Your task to perform on an android device: open app "Grab" Image 0: 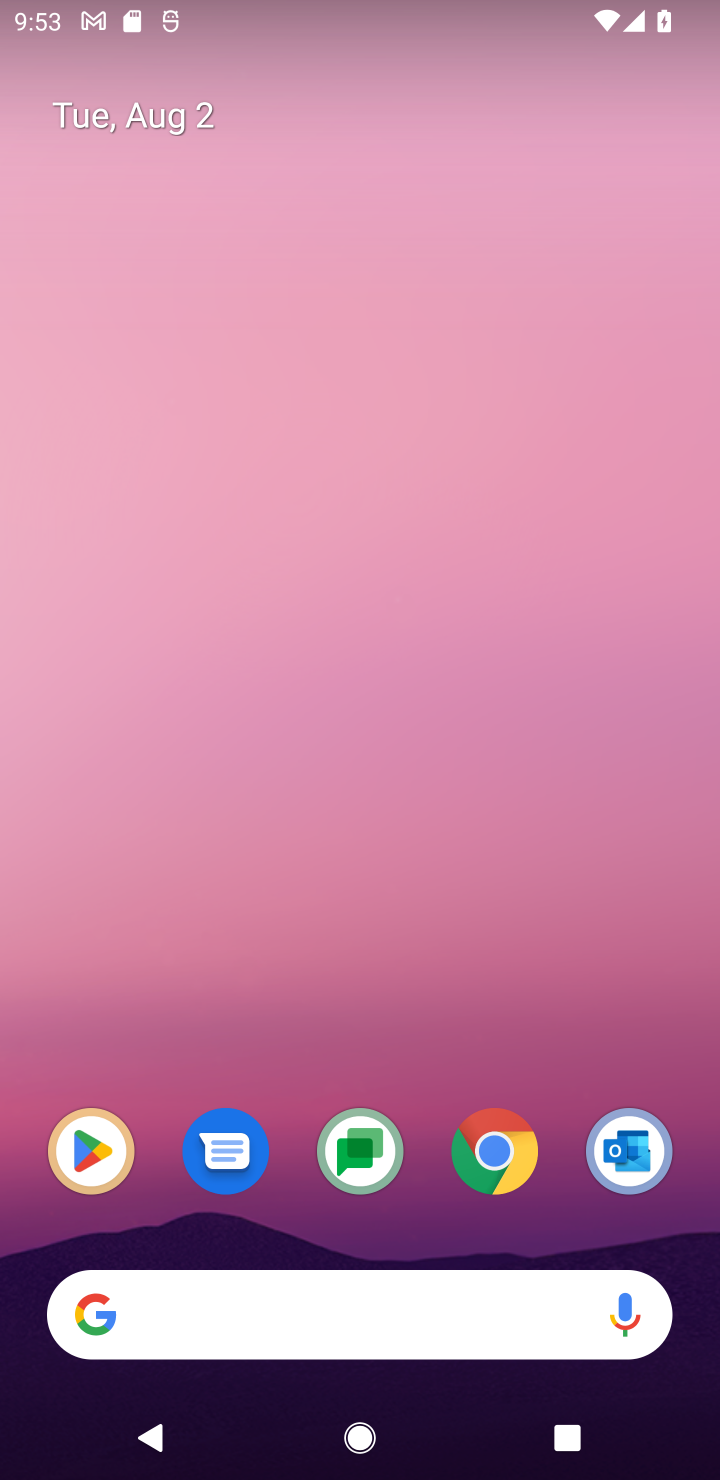
Step 0: drag from (405, 1230) to (426, 42)
Your task to perform on an android device: open app "Grab" Image 1: 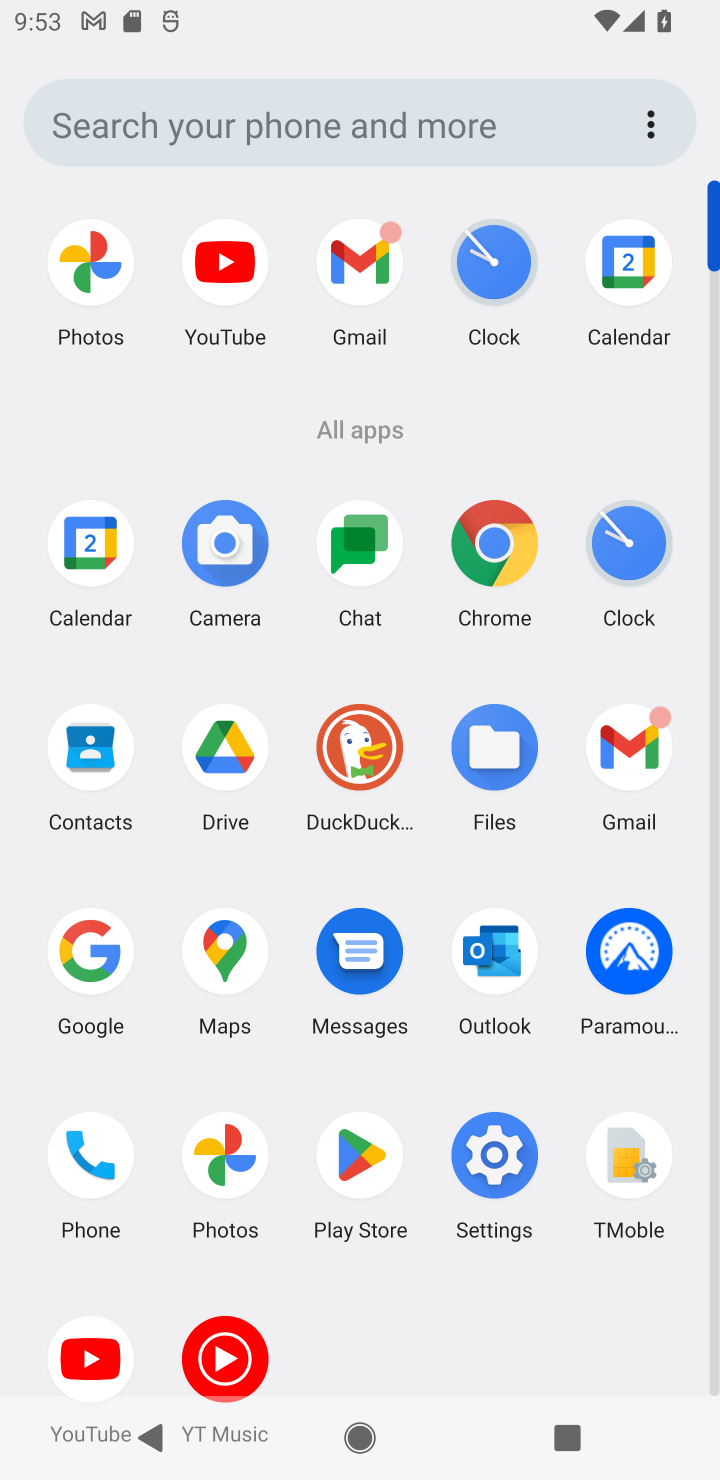
Step 1: click (355, 1179)
Your task to perform on an android device: open app "Grab" Image 2: 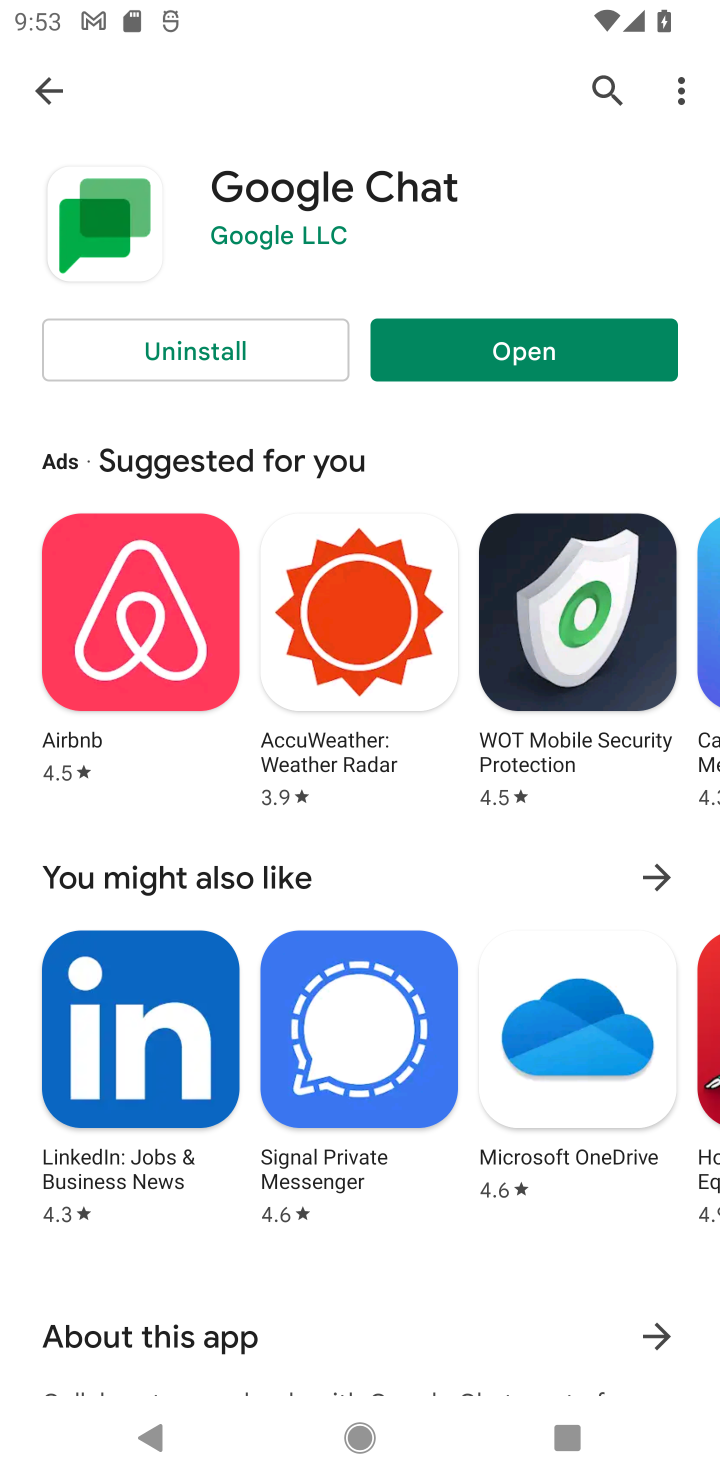
Step 2: click (26, 92)
Your task to perform on an android device: open app "Grab" Image 3: 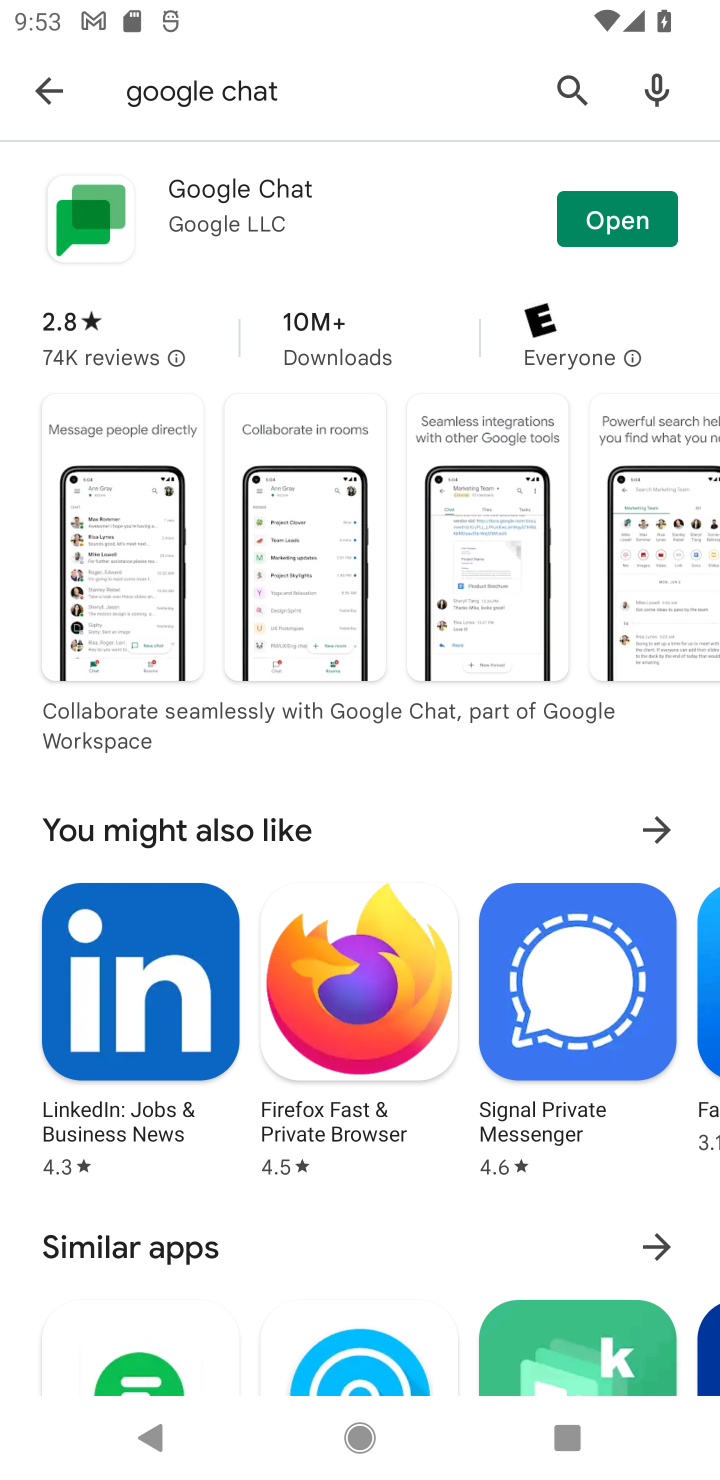
Step 3: click (41, 99)
Your task to perform on an android device: open app "Grab" Image 4: 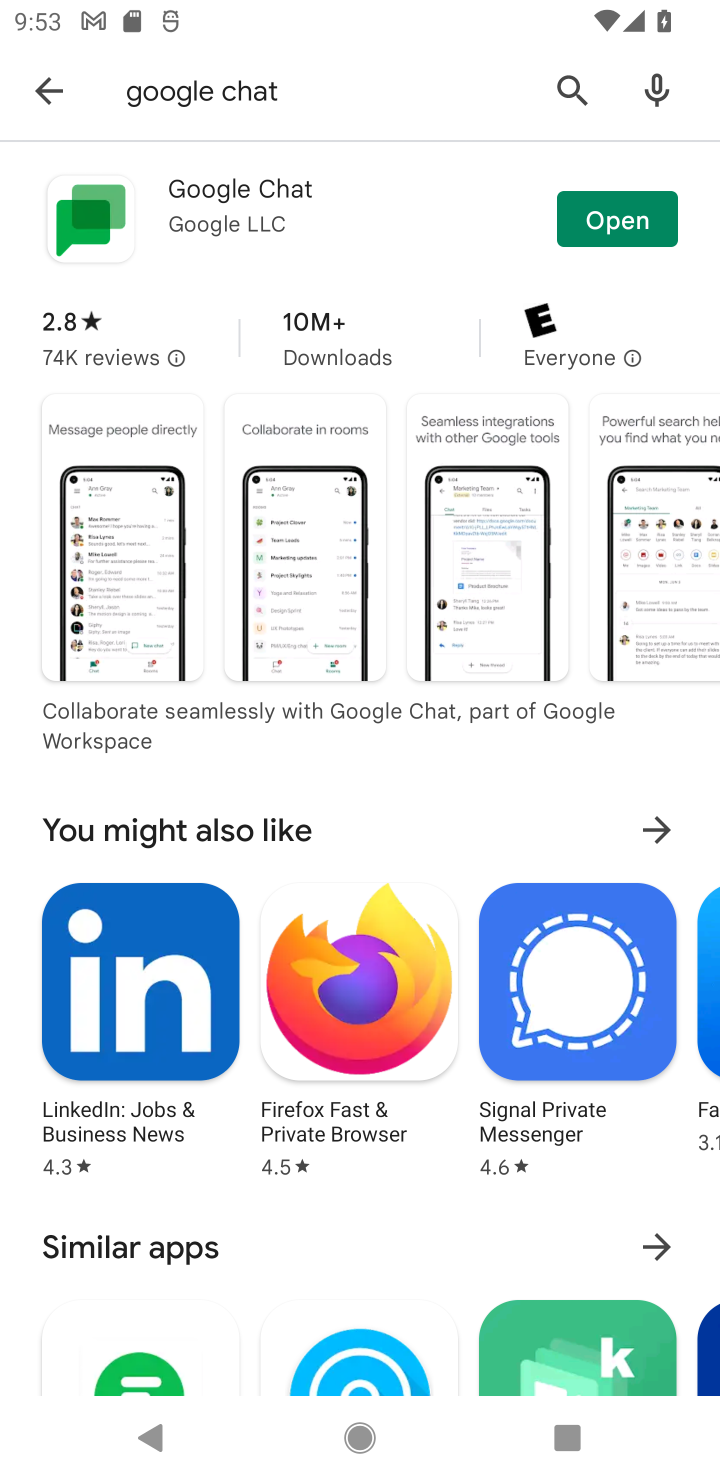
Step 4: click (76, 88)
Your task to perform on an android device: open app "Grab" Image 5: 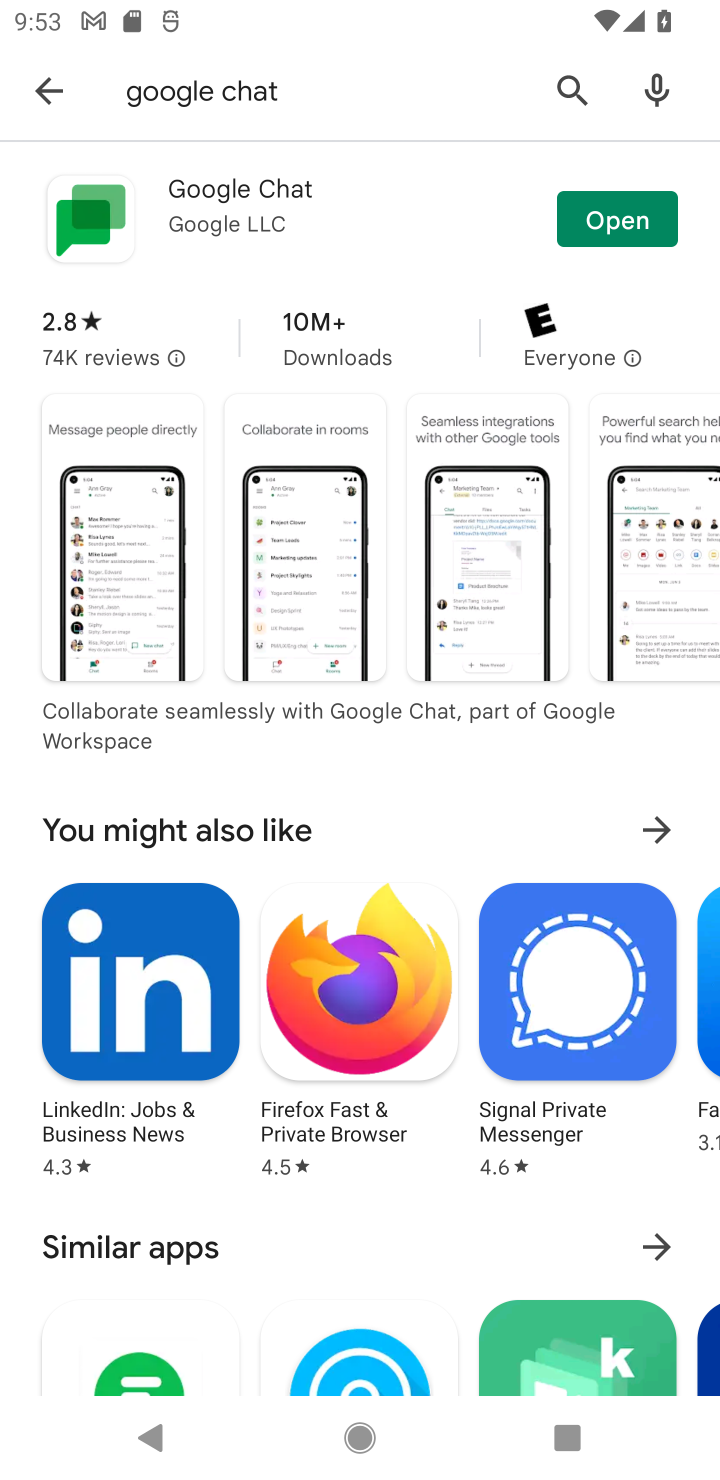
Step 5: click (44, 87)
Your task to perform on an android device: open app "Grab" Image 6: 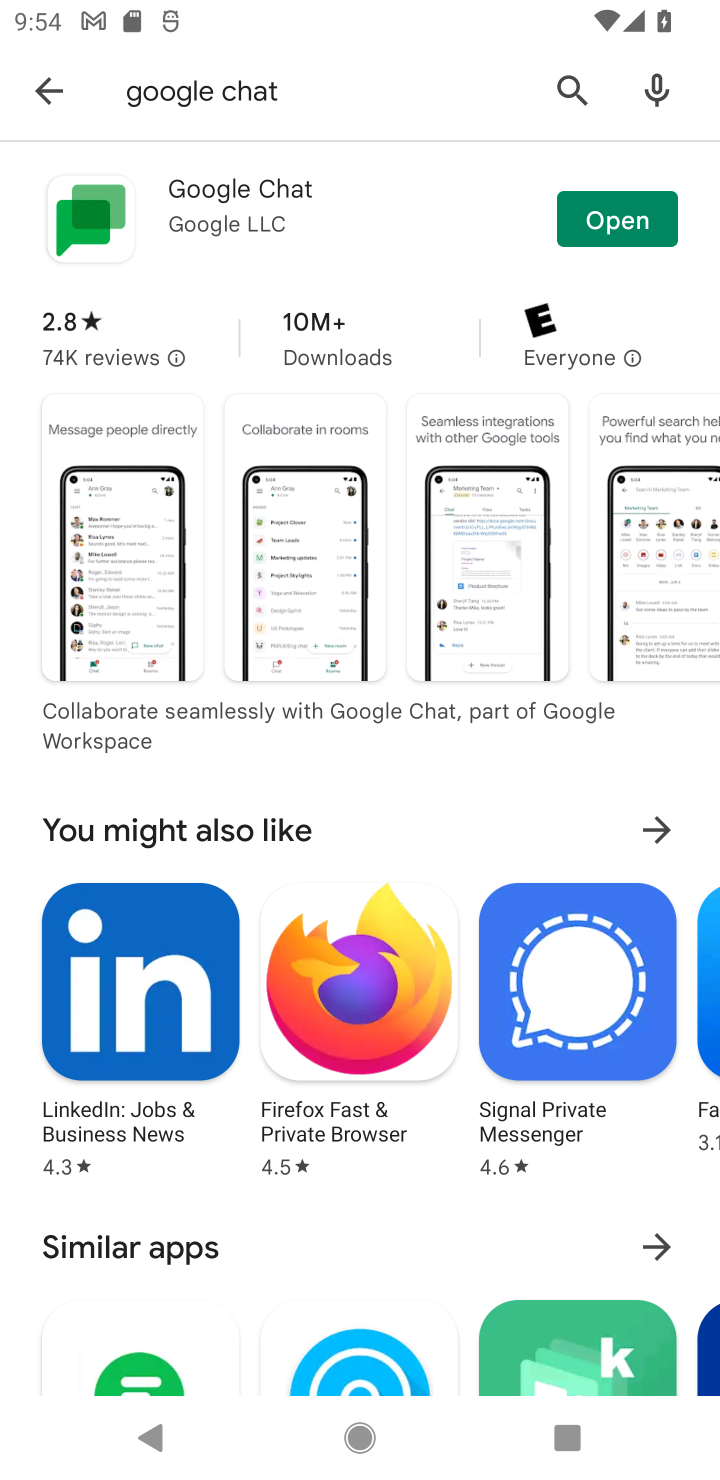
Step 6: click (551, 96)
Your task to perform on an android device: open app "Grab" Image 7: 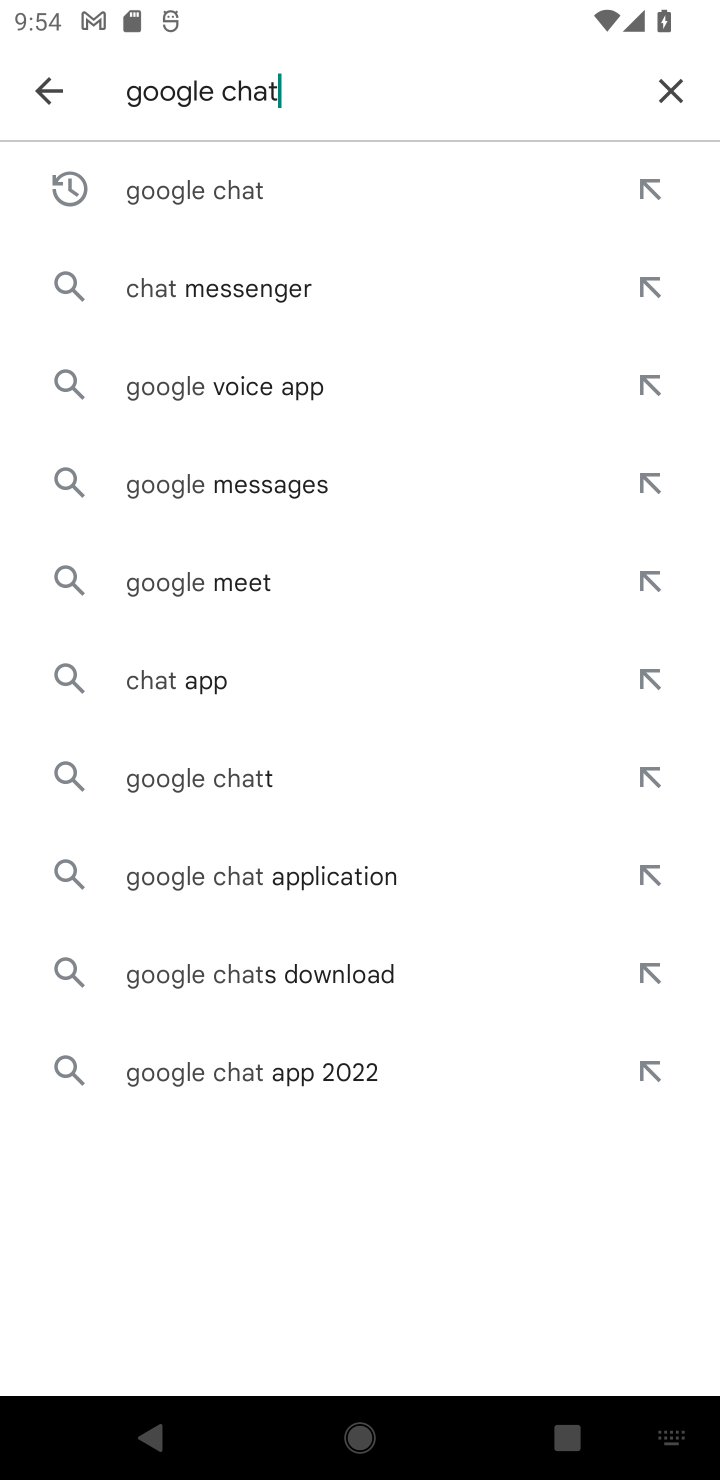
Step 7: click (17, 87)
Your task to perform on an android device: open app "Grab" Image 8: 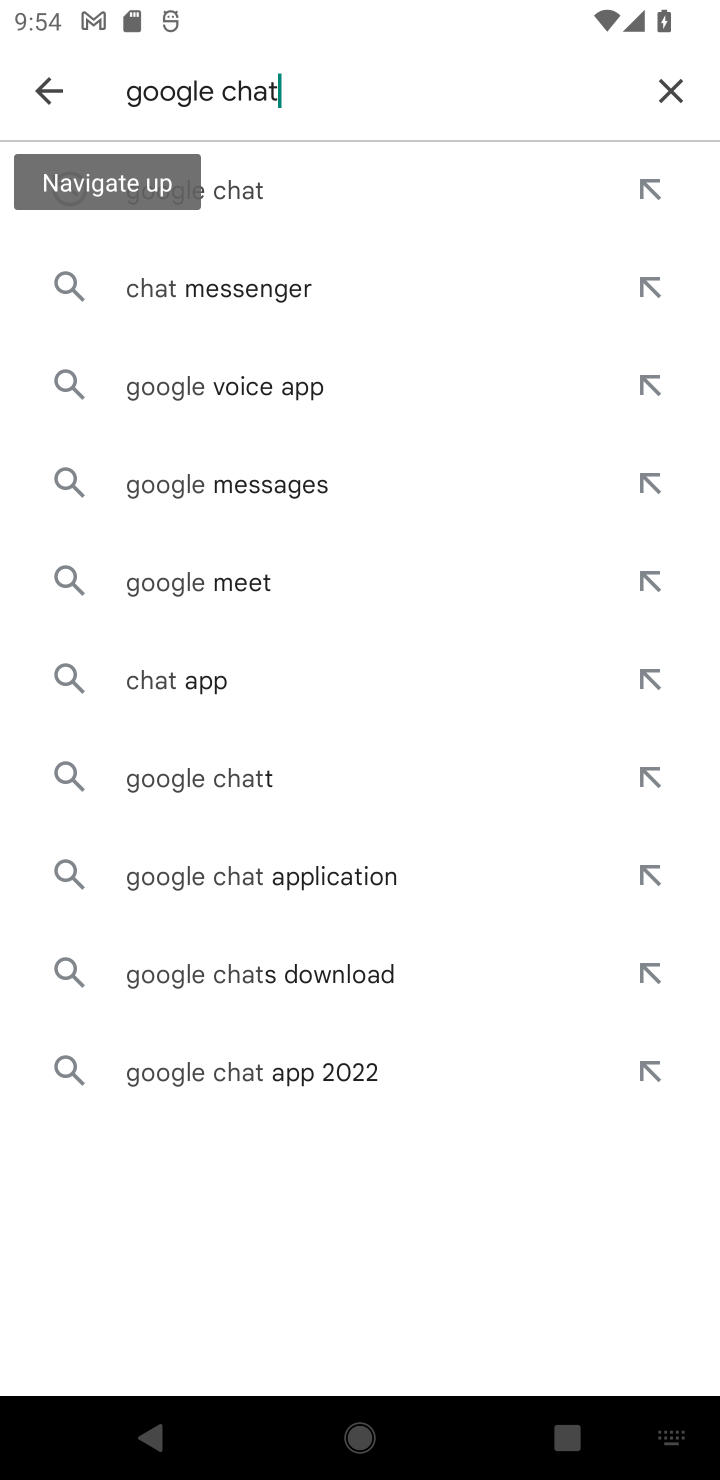
Step 8: click (41, 87)
Your task to perform on an android device: open app "Grab" Image 9: 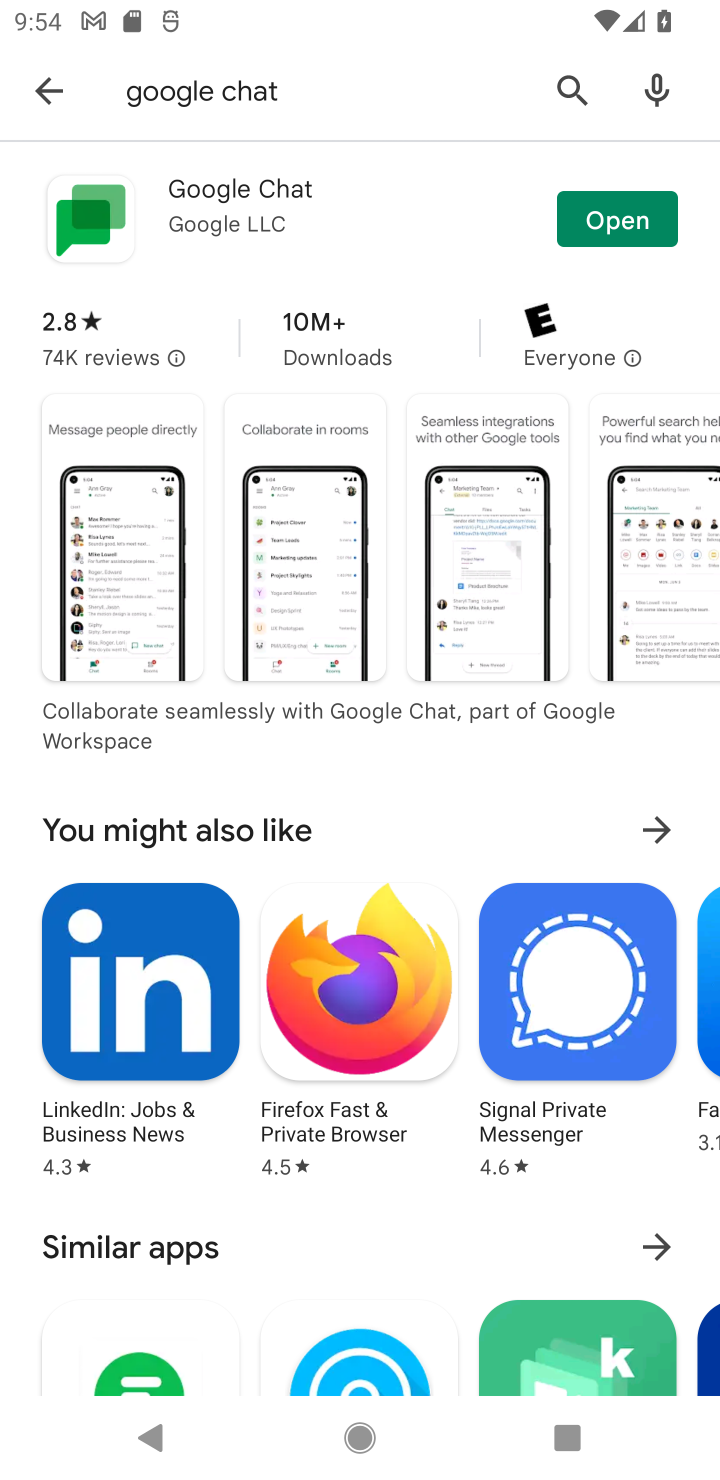
Step 9: press back button
Your task to perform on an android device: open app "Grab" Image 10: 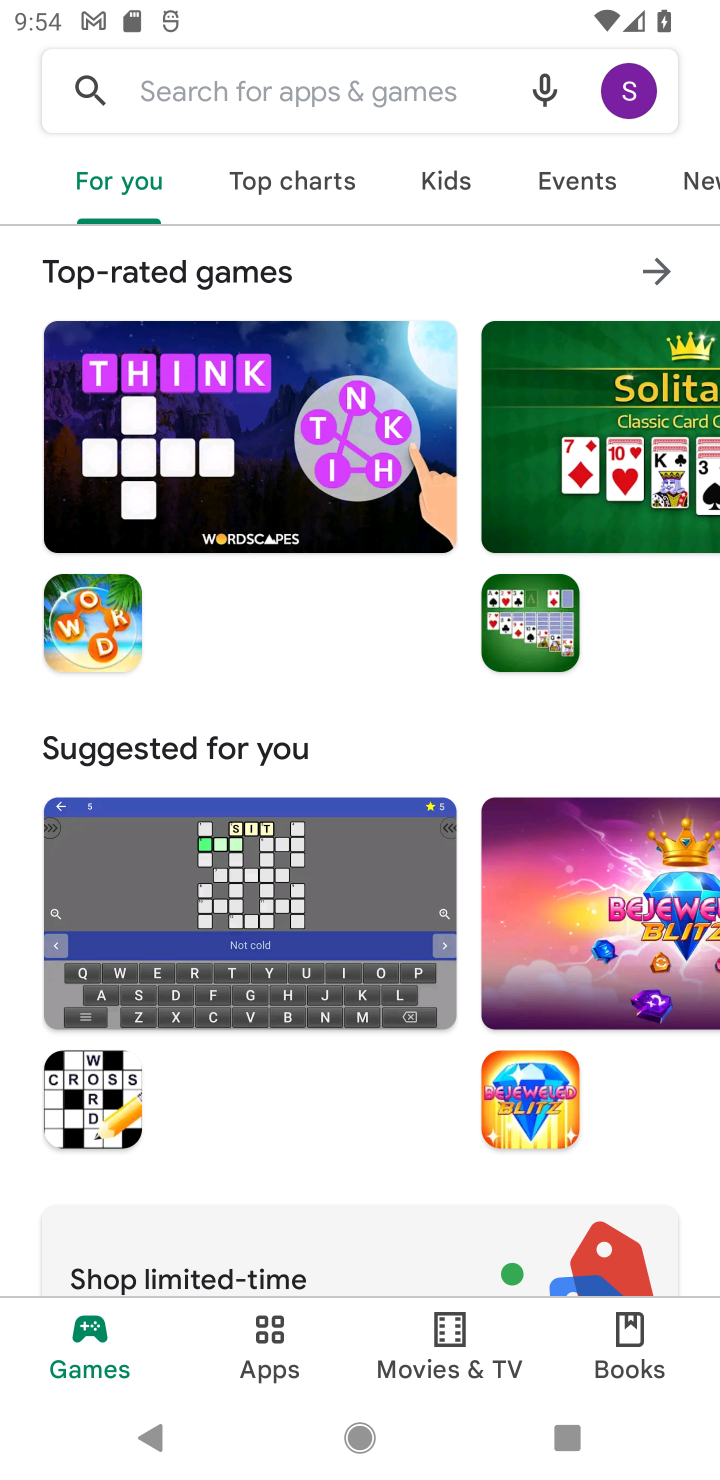
Step 10: click (325, 95)
Your task to perform on an android device: open app "Grab" Image 11: 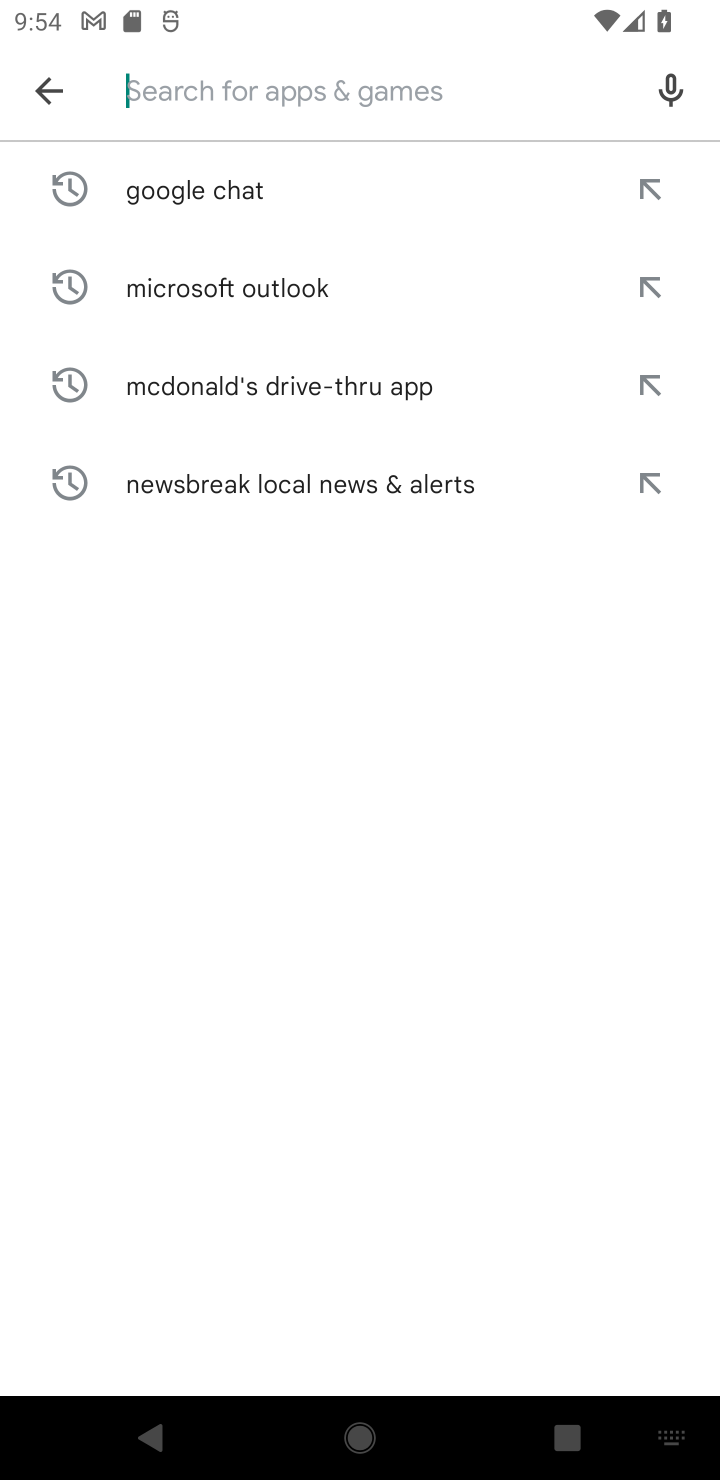
Step 11: type "Grab"
Your task to perform on an android device: open app "Grab" Image 12: 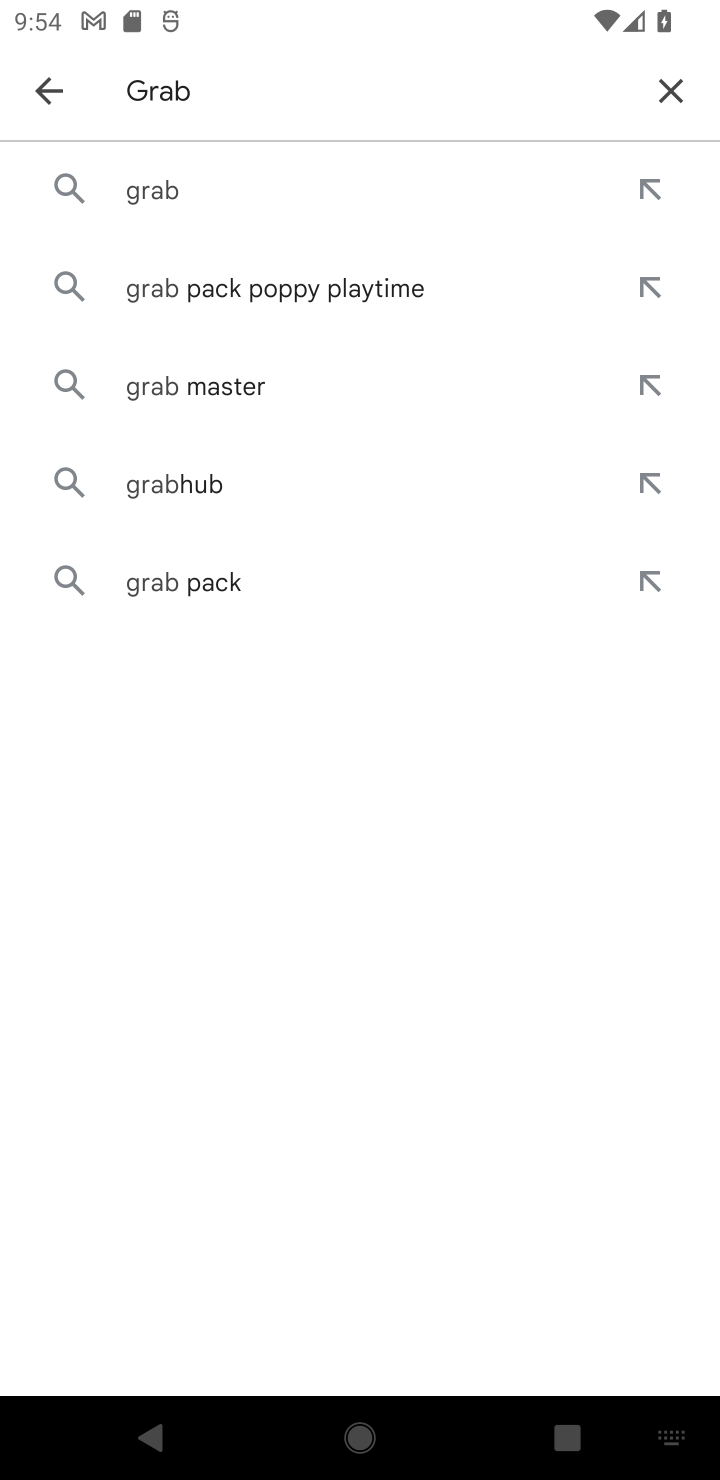
Step 12: click (137, 194)
Your task to perform on an android device: open app "Grab" Image 13: 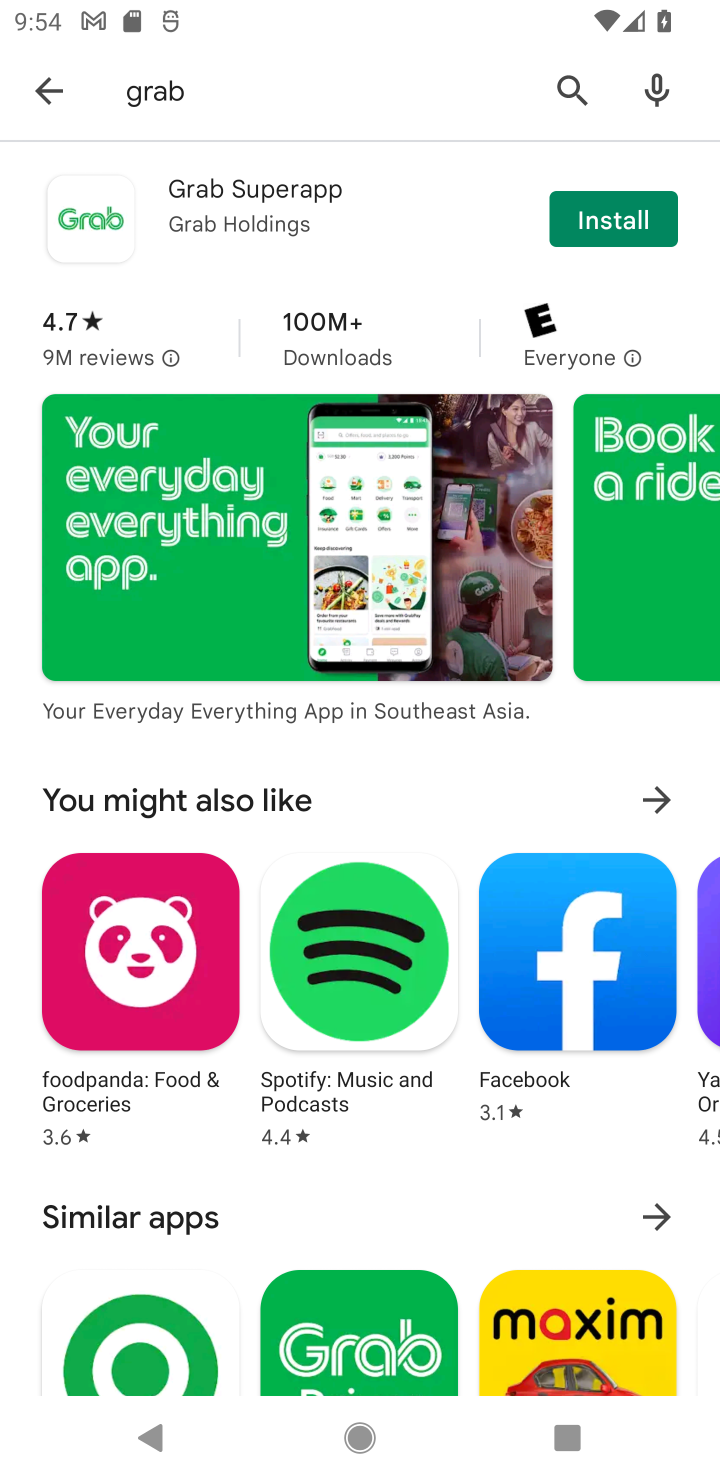
Step 13: task complete